Your task to perform on an android device: Turn off the flashlight Image 0: 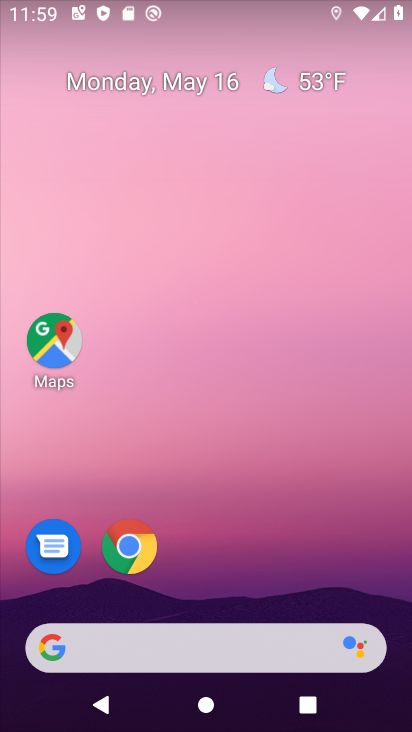
Step 0: drag from (181, 533) to (231, 112)
Your task to perform on an android device: Turn off the flashlight Image 1: 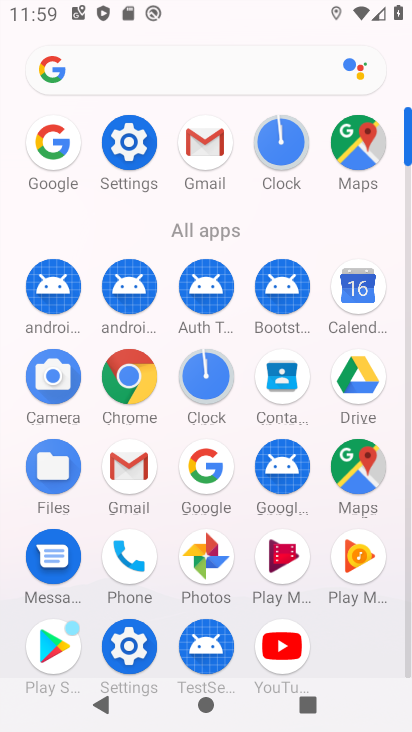
Step 1: click (128, 142)
Your task to perform on an android device: Turn off the flashlight Image 2: 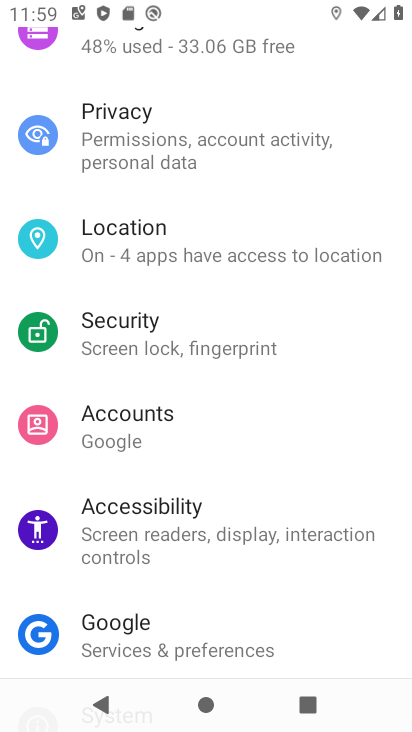
Step 2: drag from (227, 194) to (410, 511)
Your task to perform on an android device: Turn off the flashlight Image 3: 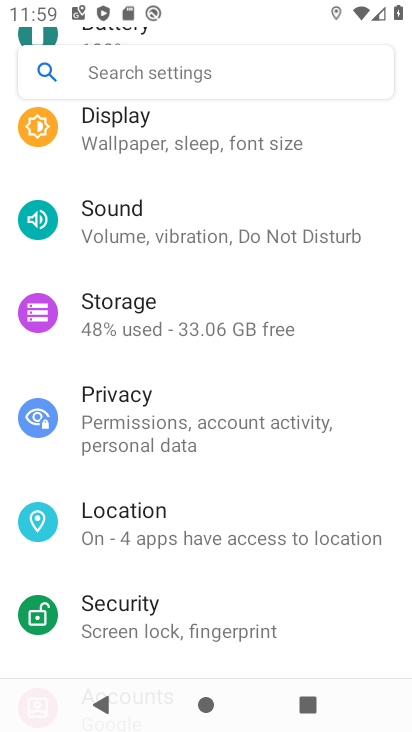
Step 3: click (193, 55)
Your task to perform on an android device: Turn off the flashlight Image 4: 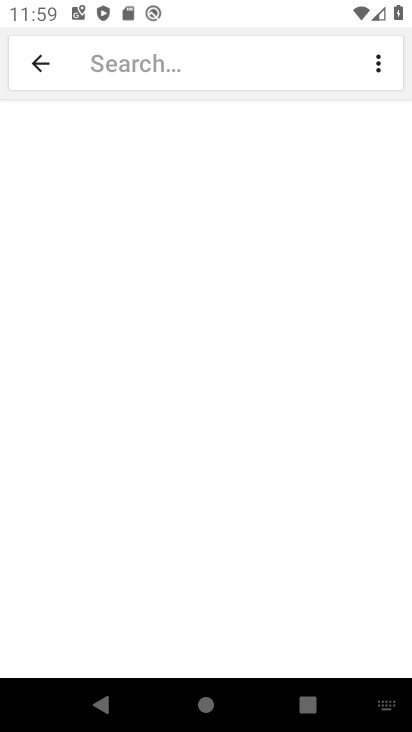
Step 4: type "flash"
Your task to perform on an android device: Turn off the flashlight Image 5: 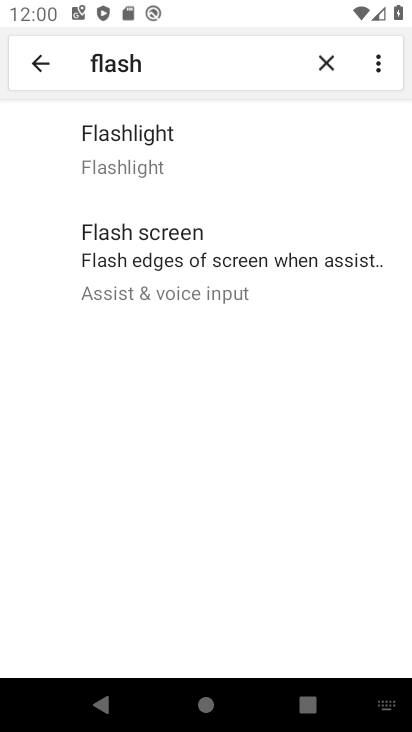
Step 5: task complete